Your task to perform on an android device: Search for Italian restaurants on Maps Image 0: 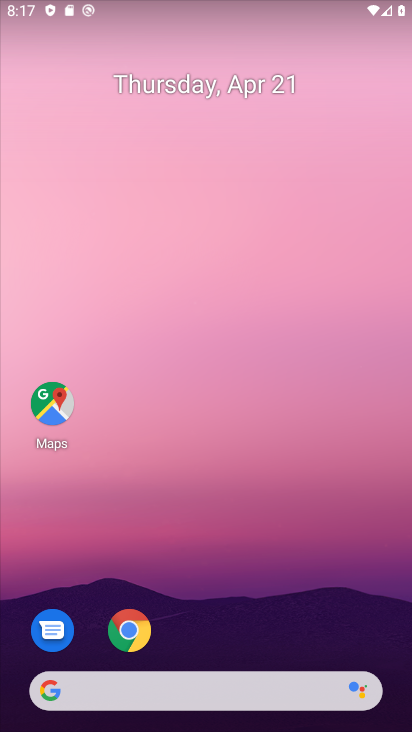
Step 0: click (49, 411)
Your task to perform on an android device: Search for Italian restaurants on Maps Image 1: 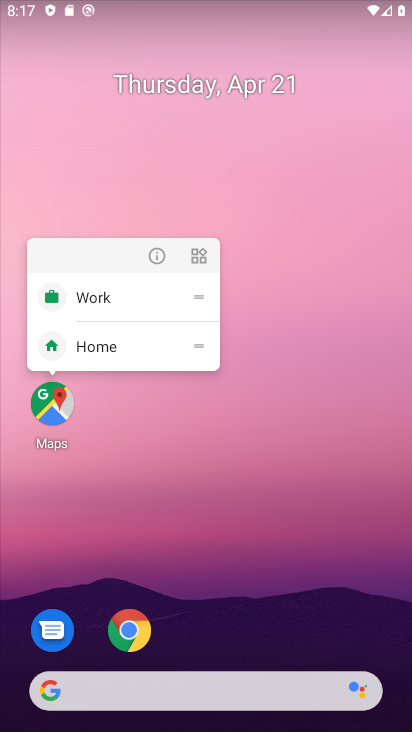
Step 1: click (42, 410)
Your task to perform on an android device: Search for Italian restaurants on Maps Image 2: 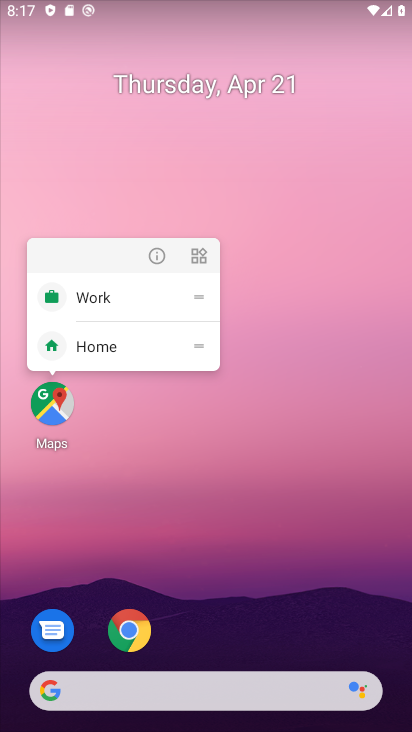
Step 2: click (42, 411)
Your task to perform on an android device: Search for Italian restaurants on Maps Image 3: 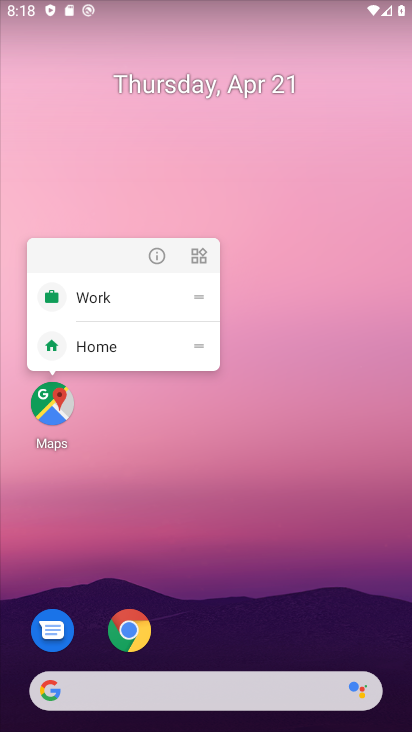
Step 3: click (48, 407)
Your task to perform on an android device: Search for Italian restaurants on Maps Image 4: 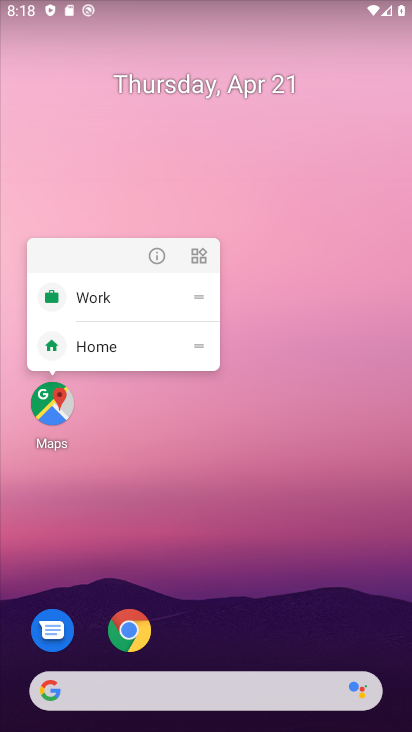
Step 4: click (60, 397)
Your task to perform on an android device: Search for Italian restaurants on Maps Image 5: 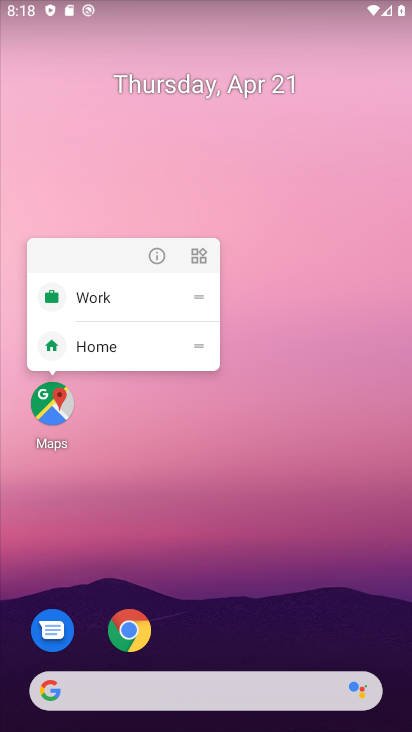
Step 5: drag from (293, 678) to (396, 29)
Your task to perform on an android device: Search for Italian restaurants on Maps Image 6: 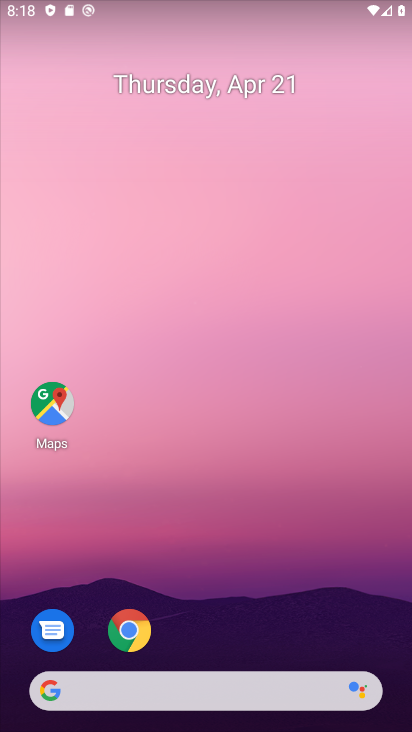
Step 6: drag from (216, 651) to (345, 1)
Your task to perform on an android device: Search for Italian restaurants on Maps Image 7: 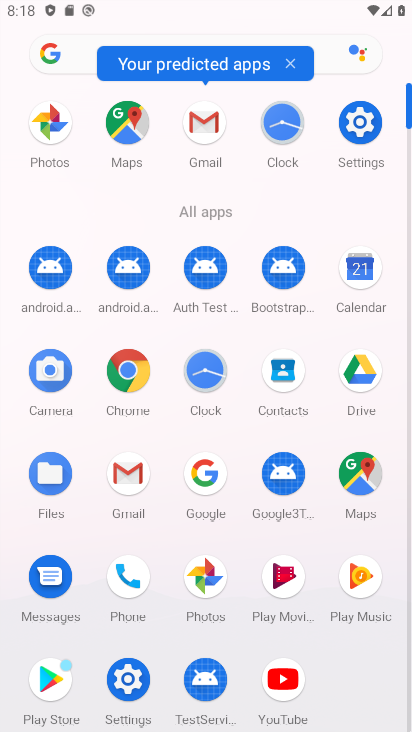
Step 7: click (135, 116)
Your task to perform on an android device: Search for Italian restaurants on Maps Image 8: 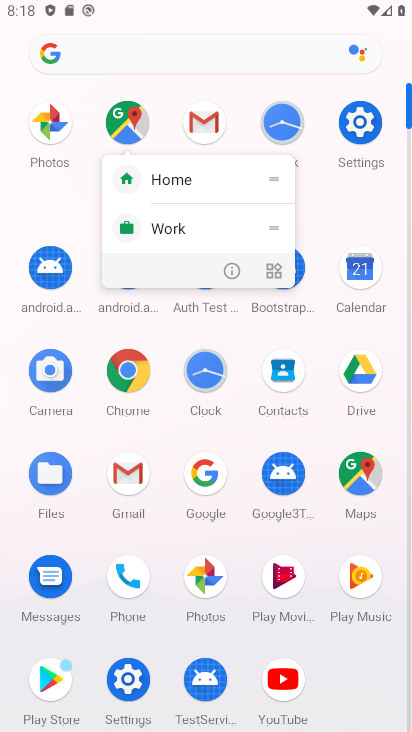
Step 8: click (127, 131)
Your task to perform on an android device: Search for Italian restaurants on Maps Image 9: 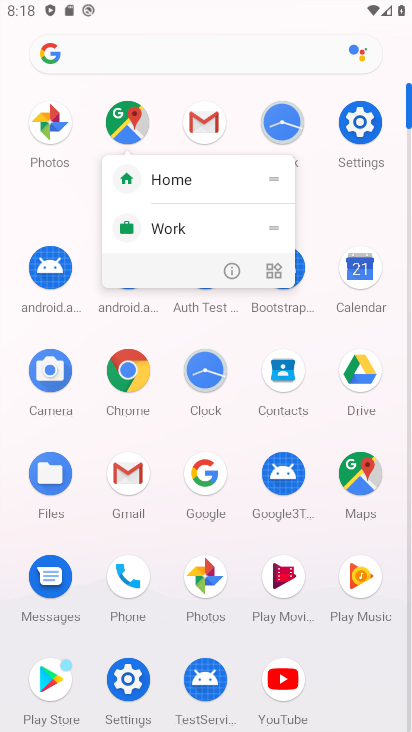
Step 9: click (133, 125)
Your task to perform on an android device: Search for Italian restaurants on Maps Image 10: 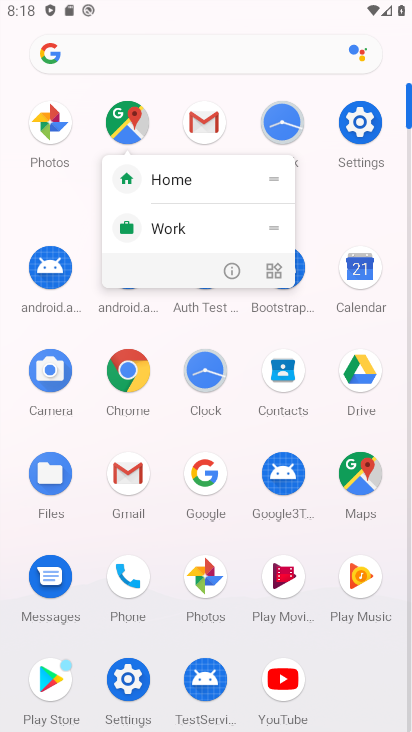
Step 10: click (127, 112)
Your task to perform on an android device: Search for Italian restaurants on Maps Image 11: 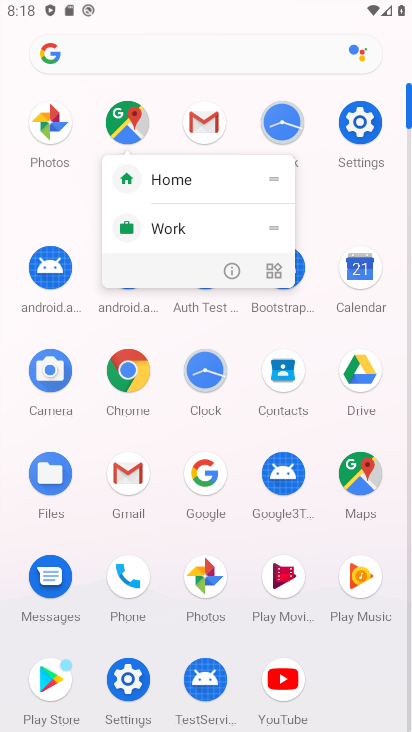
Step 11: click (125, 117)
Your task to perform on an android device: Search for Italian restaurants on Maps Image 12: 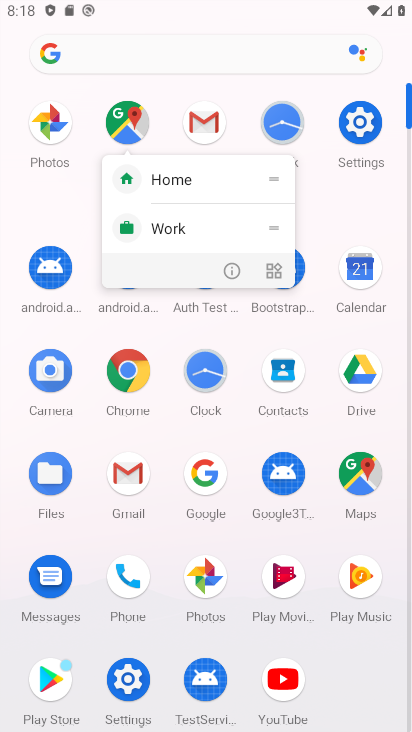
Step 12: click (138, 124)
Your task to perform on an android device: Search for Italian restaurants on Maps Image 13: 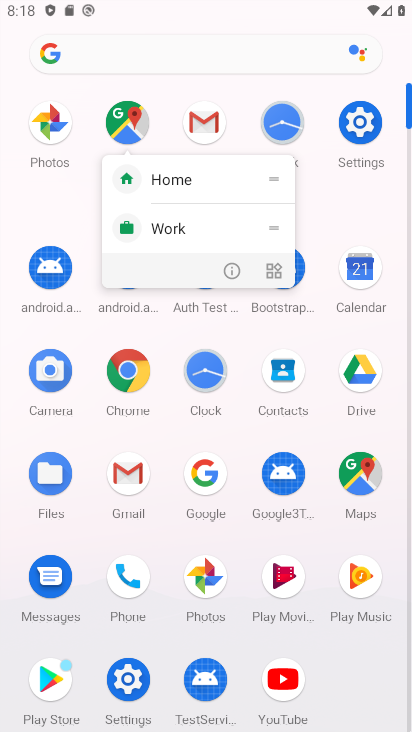
Step 13: click (141, 118)
Your task to perform on an android device: Search for Italian restaurants on Maps Image 14: 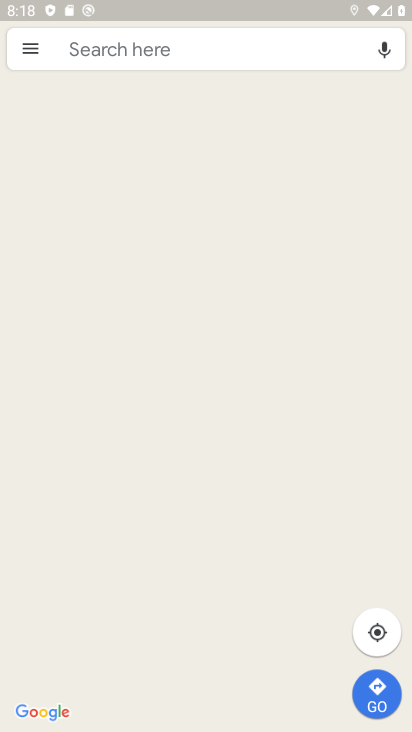
Step 14: click (233, 45)
Your task to perform on an android device: Search for Italian restaurants on Maps Image 15: 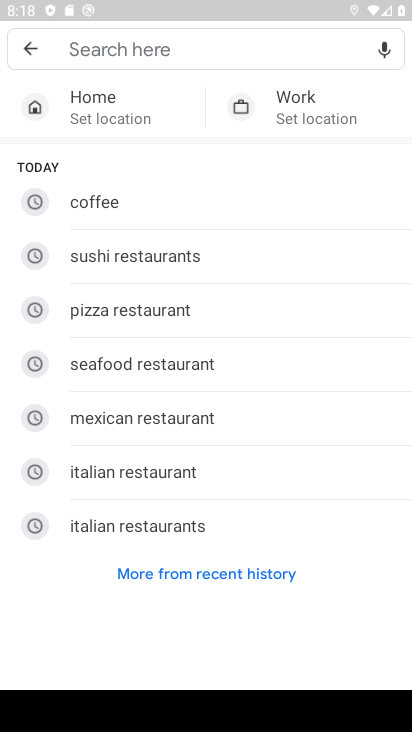
Step 15: type "Italian restaurants"
Your task to perform on an android device: Search for Italian restaurants on Maps Image 16: 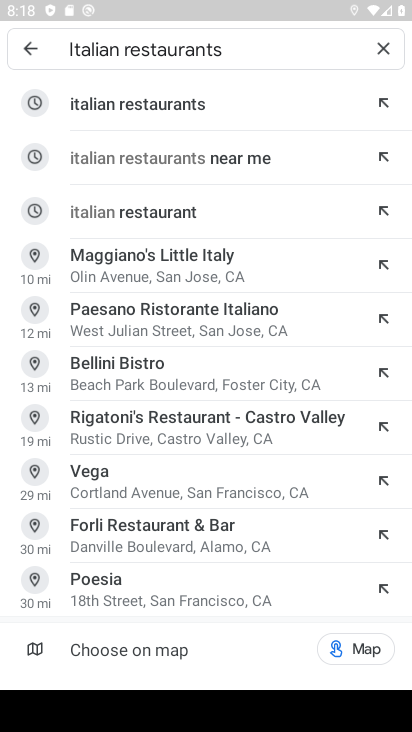
Step 16: click (242, 108)
Your task to perform on an android device: Search for Italian restaurants on Maps Image 17: 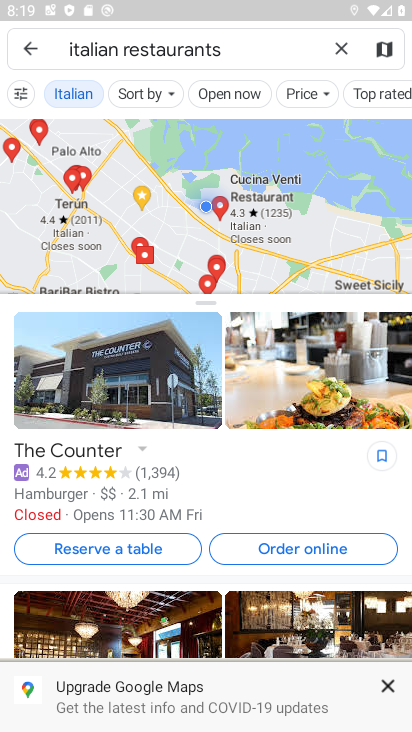
Step 17: click (394, 692)
Your task to perform on an android device: Search for Italian restaurants on Maps Image 18: 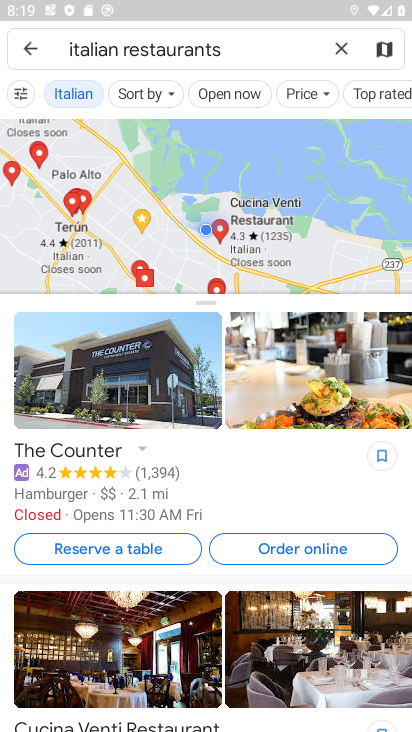
Step 18: task complete